Your task to perform on an android device: open device folders in google photos Image 0: 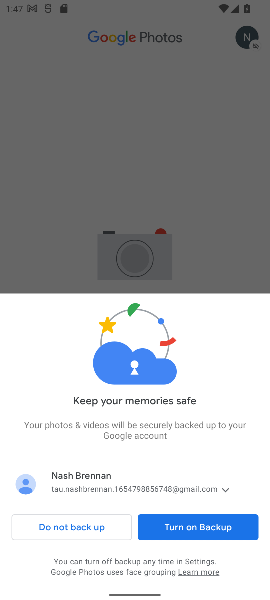
Step 0: press home button
Your task to perform on an android device: open device folders in google photos Image 1: 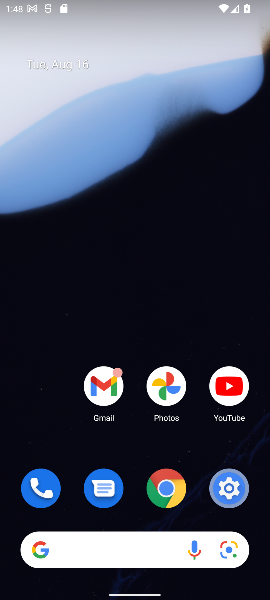
Step 1: drag from (153, 300) to (191, 68)
Your task to perform on an android device: open device folders in google photos Image 2: 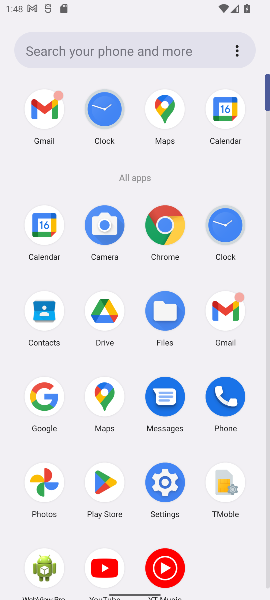
Step 2: click (41, 484)
Your task to perform on an android device: open device folders in google photos Image 3: 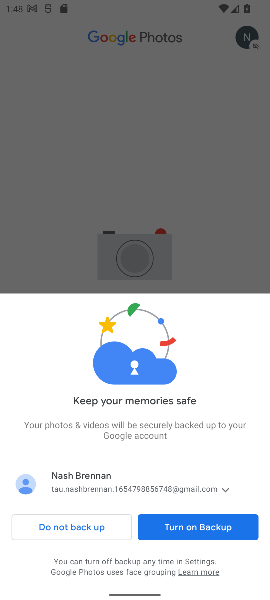
Step 3: task complete